Your task to perform on an android device: turn notification dots off Image 0: 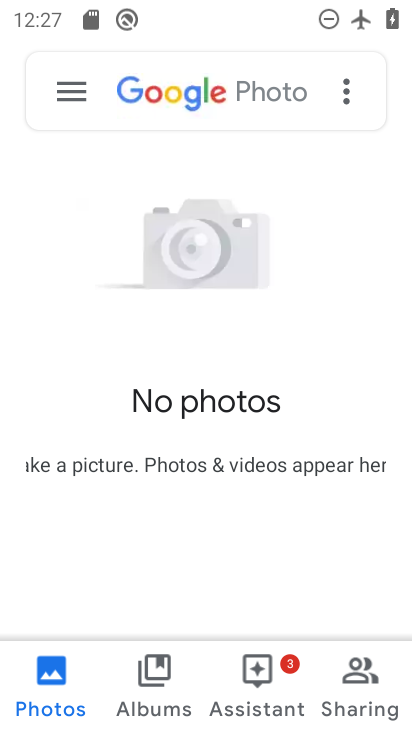
Step 0: press home button
Your task to perform on an android device: turn notification dots off Image 1: 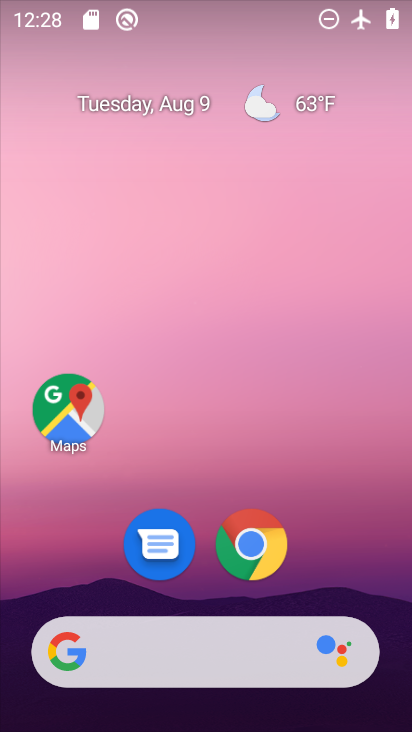
Step 1: drag from (172, 656) to (197, 152)
Your task to perform on an android device: turn notification dots off Image 2: 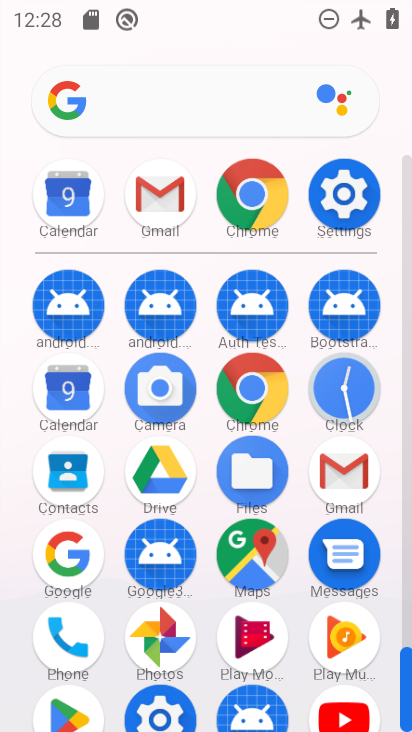
Step 2: click (343, 194)
Your task to perform on an android device: turn notification dots off Image 3: 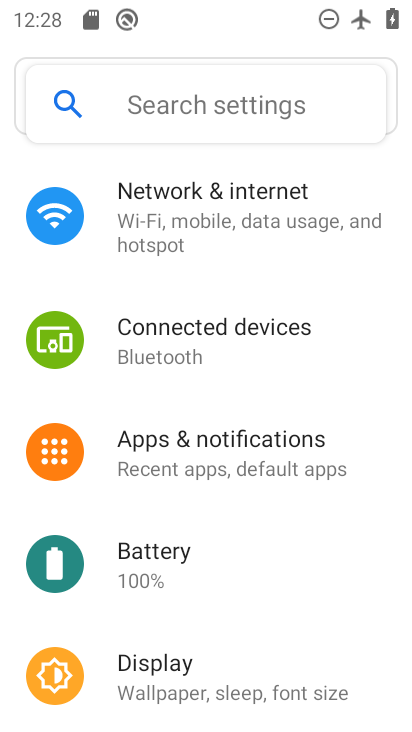
Step 3: click (212, 453)
Your task to perform on an android device: turn notification dots off Image 4: 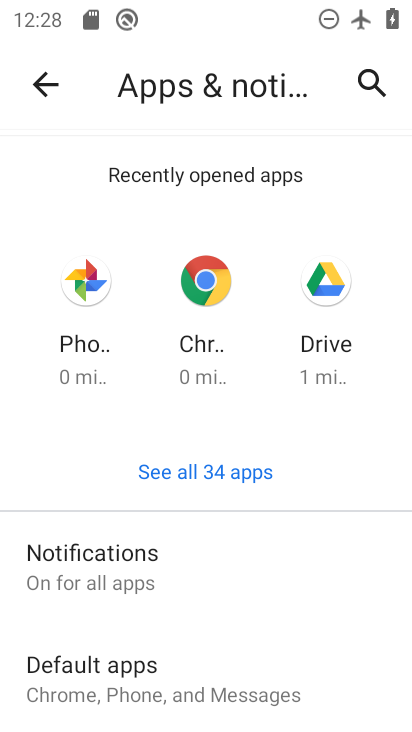
Step 4: click (107, 566)
Your task to perform on an android device: turn notification dots off Image 5: 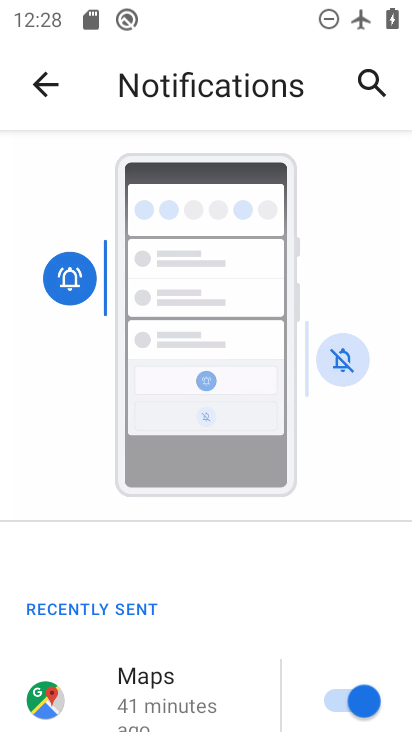
Step 5: drag from (175, 583) to (300, 259)
Your task to perform on an android device: turn notification dots off Image 6: 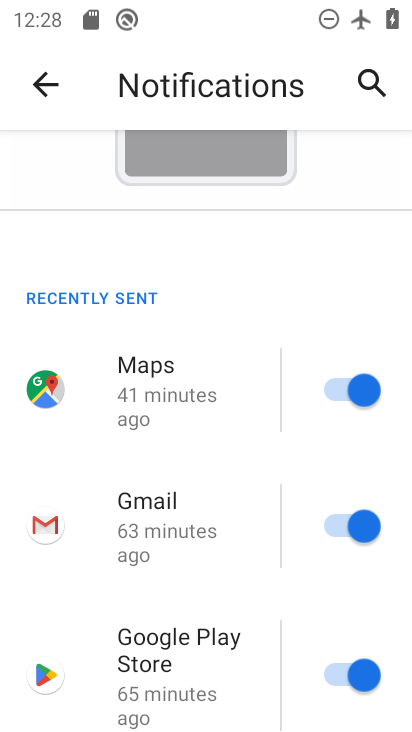
Step 6: drag from (186, 571) to (268, 376)
Your task to perform on an android device: turn notification dots off Image 7: 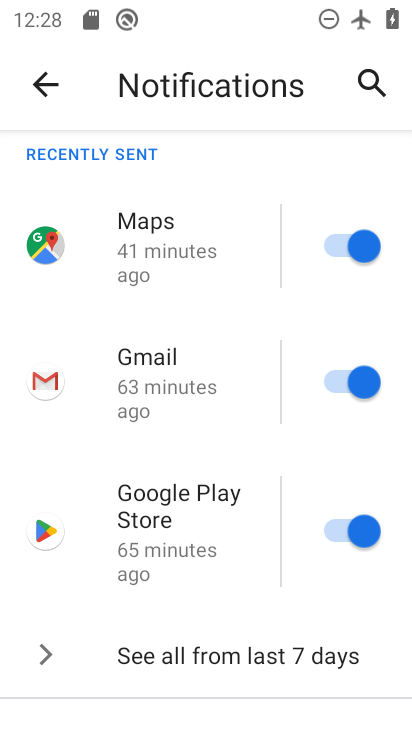
Step 7: drag from (181, 606) to (263, 348)
Your task to perform on an android device: turn notification dots off Image 8: 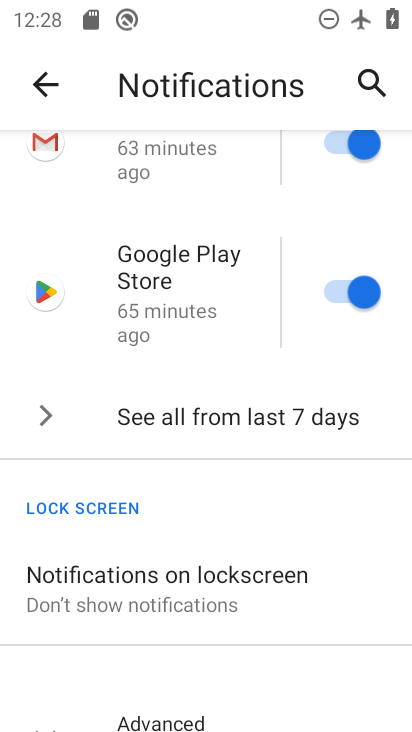
Step 8: drag from (200, 656) to (304, 437)
Your task to perform on an android device: turn notification dots off Image 9: 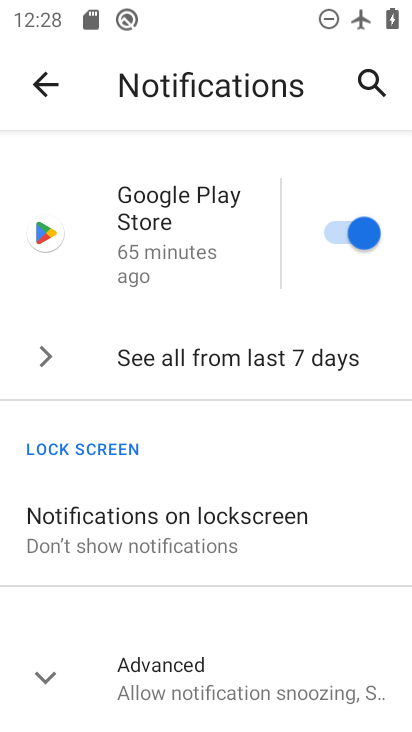
Step 9: click (204, 675)
Your task to perform on an android device: turn notification dots off Image 10: 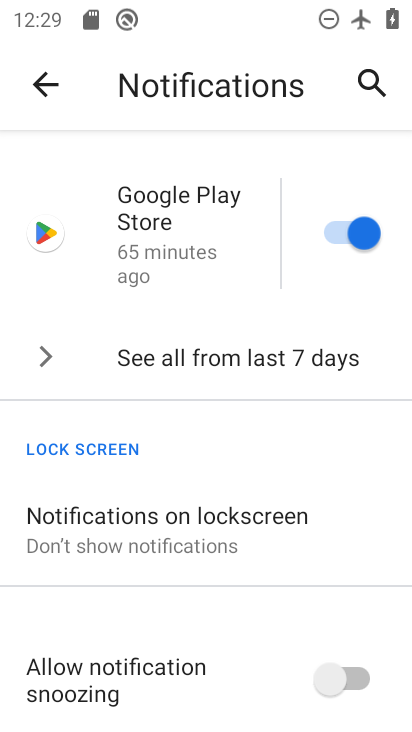
Step 10: task complete